Your task to perform on an android device: open app "Gboard" Image 0: 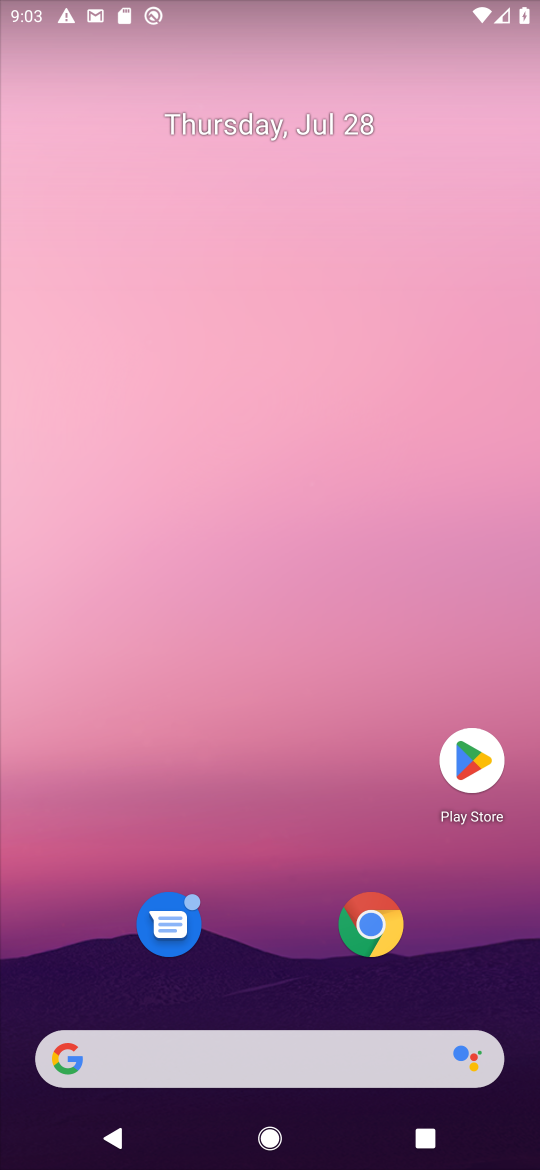
Step 0: press home button
Your task to perform on an android device: open app "Gboard" Image 1: 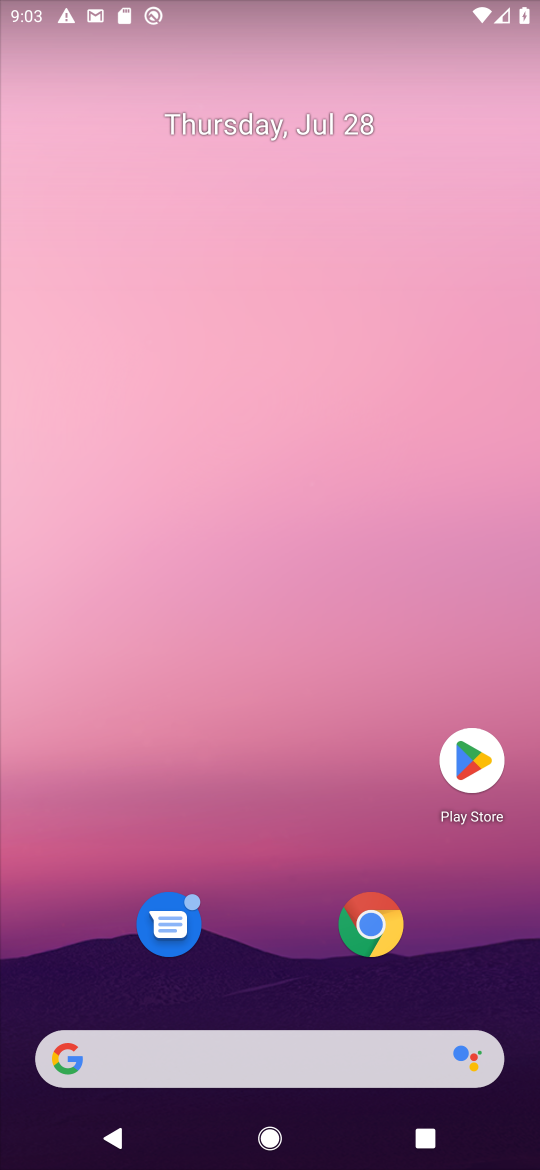
Step 1: click (481, 772)
Your task to perform on an android device: open app "Gboard" Image 2: 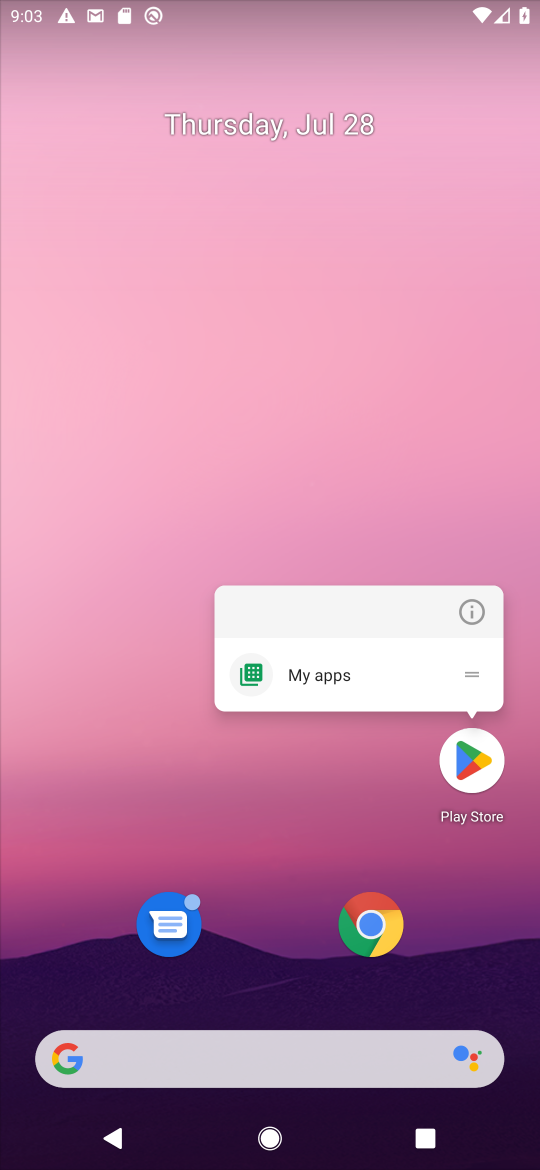
Step 2: click (472, 761)
Your task to perform on an android device: open app "Gboard" Image 3: 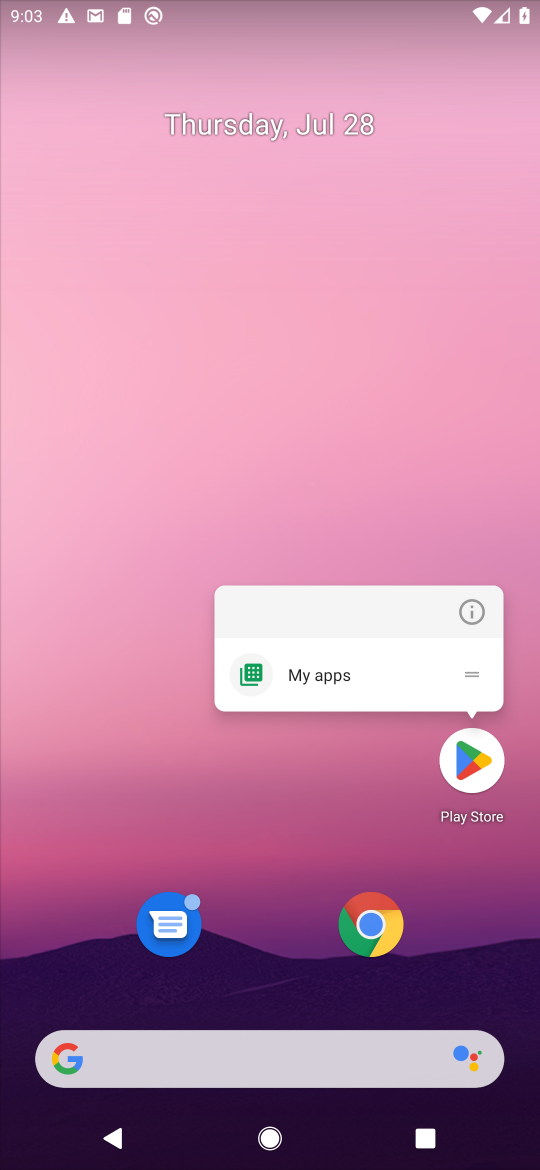
Step 3: click (472, 758)
Your task to perform on an android device: open app "Gboard" Image 4: 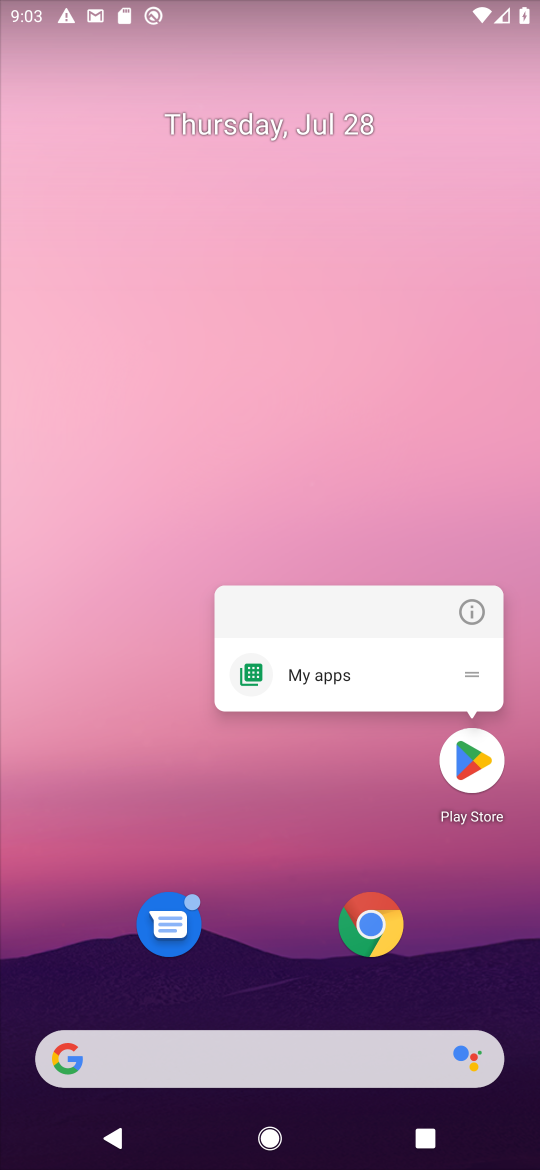
Step 4: click (482, 754)
Your task to perform on an android device: open app "Gboard" Image 5: 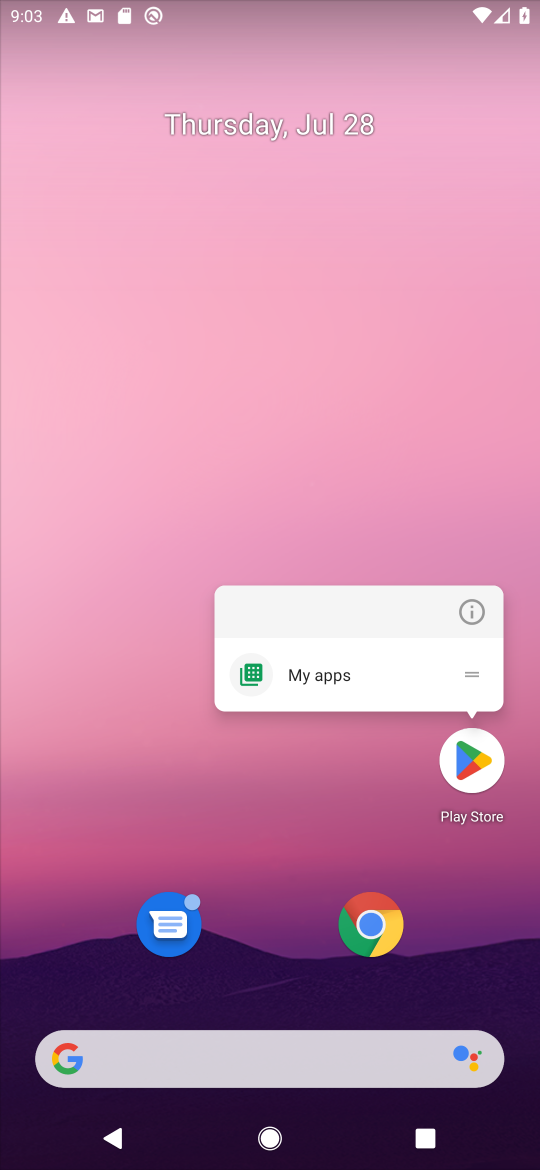
Step 5: click (474, 754)
Your task to perform on an android device: open app "Gboard" Image 6: 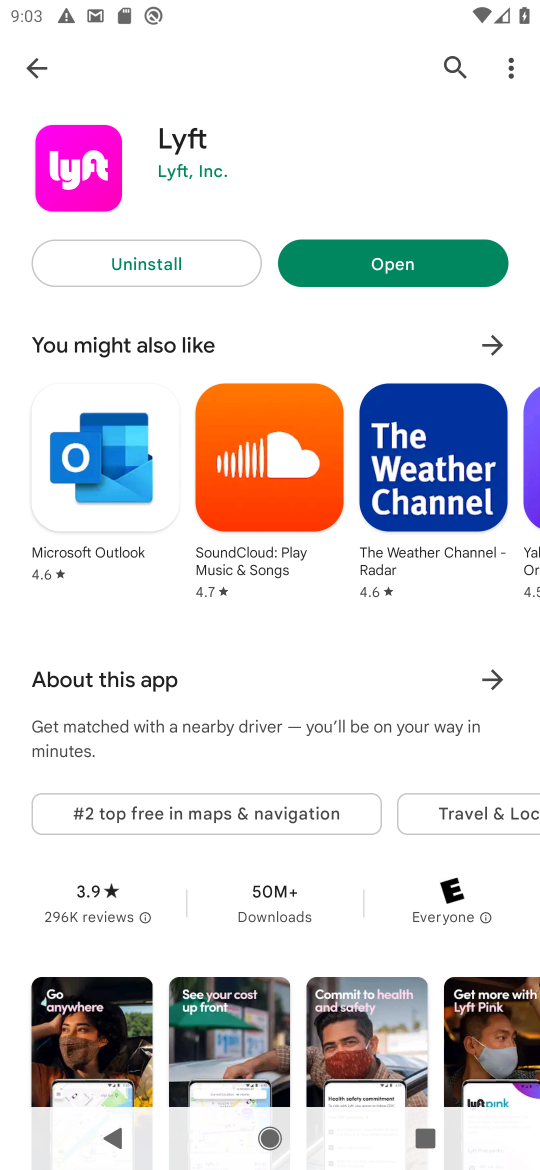
Step 6: click (36, 62)
Your task to perform on an android device: open app "Gboard" Image 7: 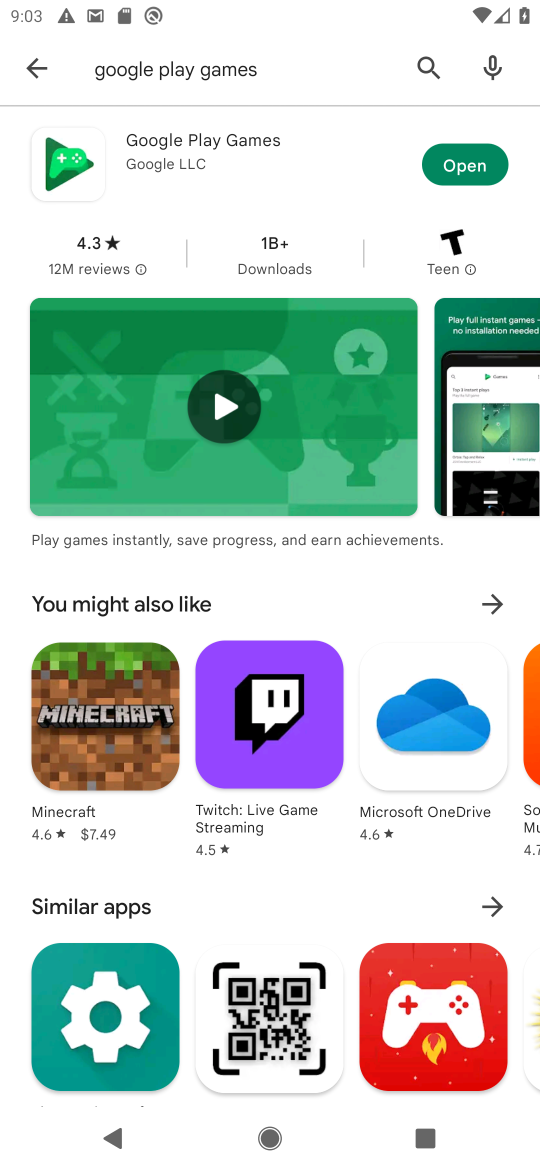
Step 7: click (425, 50)
Your task to perform on an android device: open app "Gboard" Image 8: 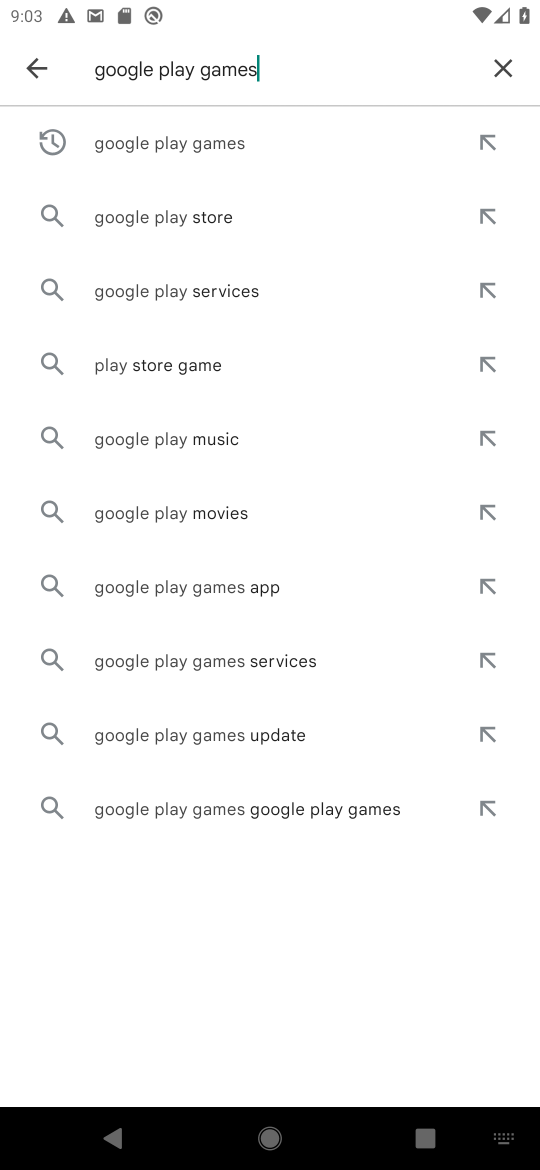
Step 8: click (506, 55)
Your task to perform on an android device: open app "Gboard" Image 9: 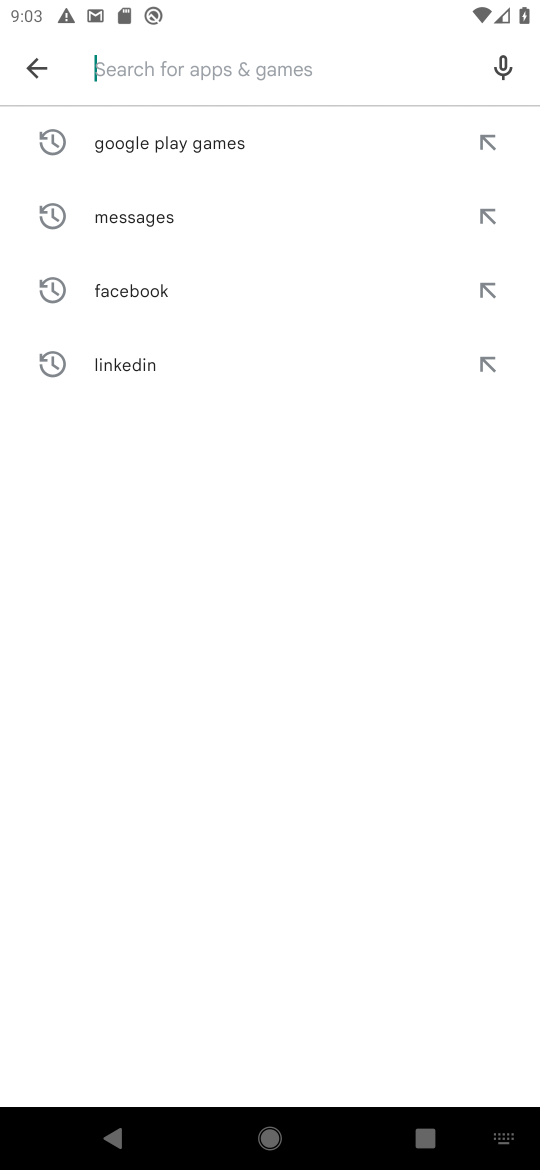
Step 9: type "Gboard"
Your task to perform on an android device: open app "Gboard" Image 10: 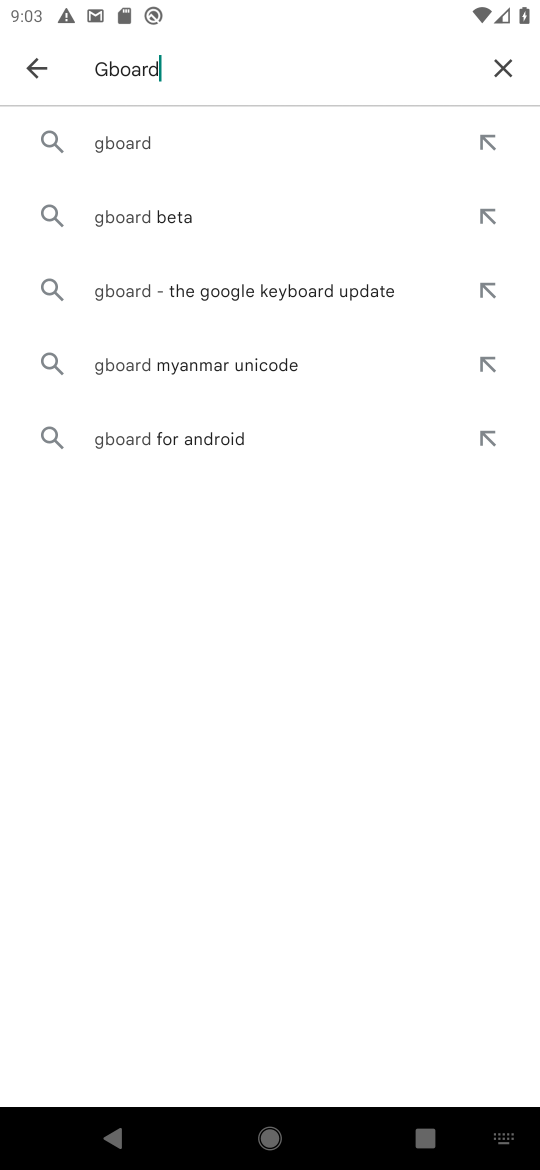
Step 10: click (131, 141)
Your task to perform on an android device: open app "Gboard" Image 11: 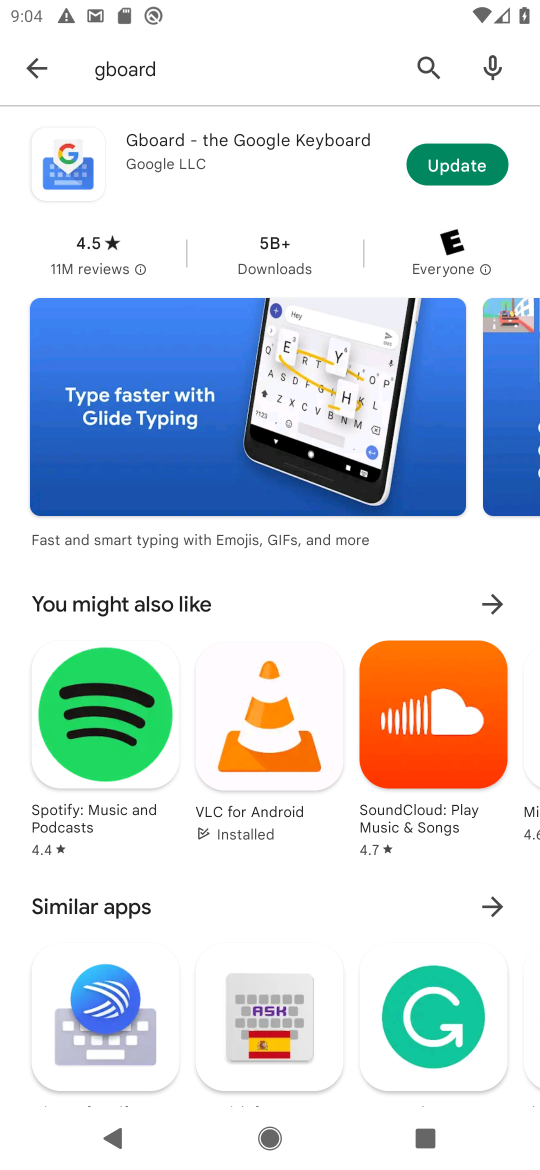
Step 11: task complete